Your task to perform on an android device: turn on showing notifications on the lock screen Image 0: 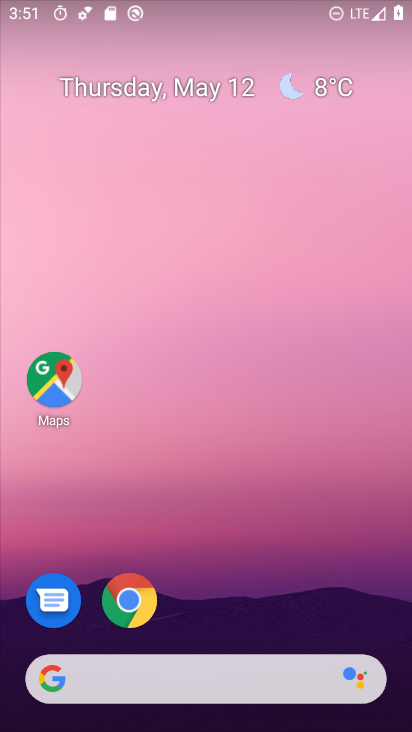
Step 0: drag from (217, 632) to (216, 192)
Your task to perform on an android device: turn on showing notifications on the lock screen Image 1: 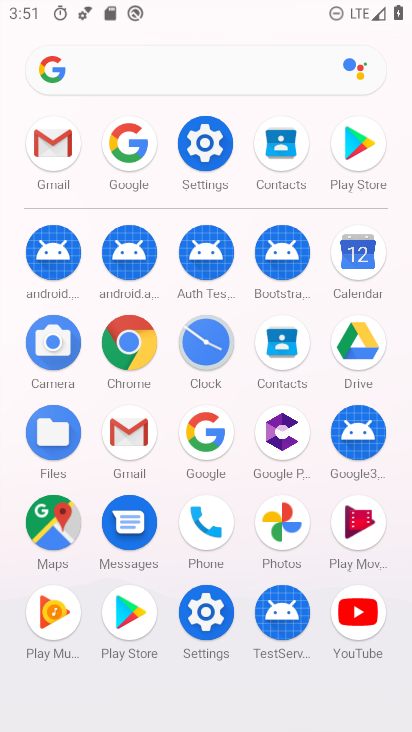
Step 1: click (209, 143)
Your task to perform on an android device: turn on showing notifications on the lock screen Image 2: 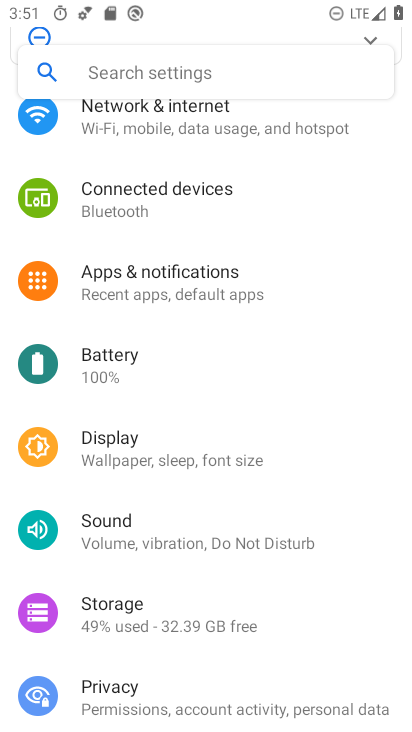
Step 2: click (158, 284)
Your task to perform on an android device: turn on showing notifications on the lock screen Image 3: 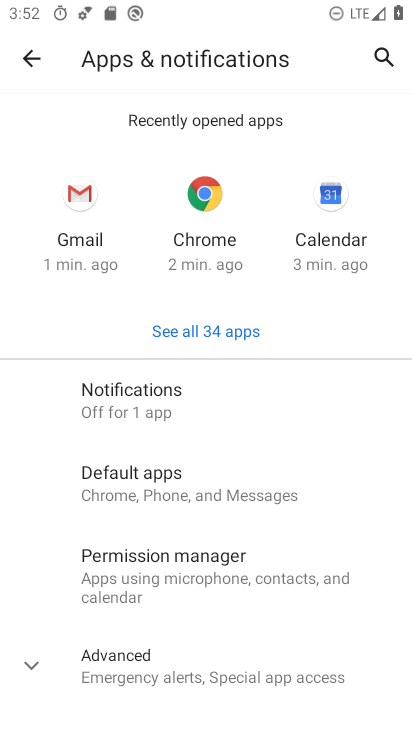
Step 3: click (122, 400)
Your task to perform on an android device: turn on showing notifications on the lock screen Image 4: 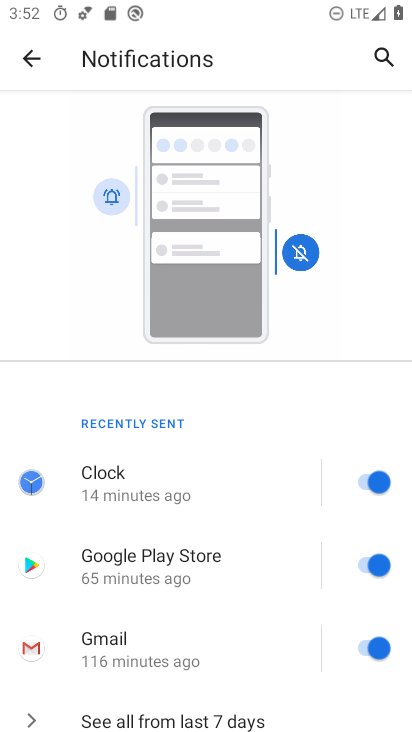
Step 4: drag from (179, 706) to (184, 236)
Your task to perform on an android device: turn on showing notifications on the lock screen Image 5: 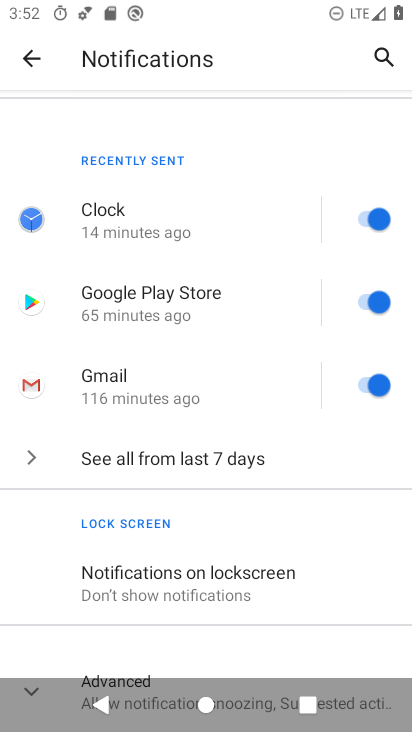
Step 5: click (176, 577)
Your task to perform on an android device: turn on showing notifications on the lock screen Image 6: 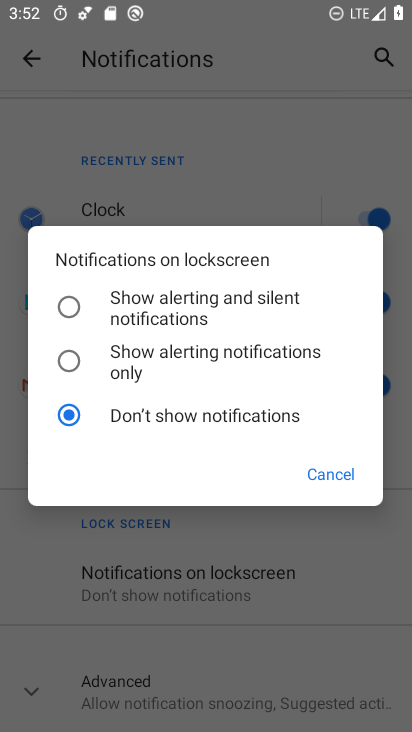
Step 6: click (72, 306)
Your task to perform on an android device: turn on showing notifications on the lock screen Image 7: 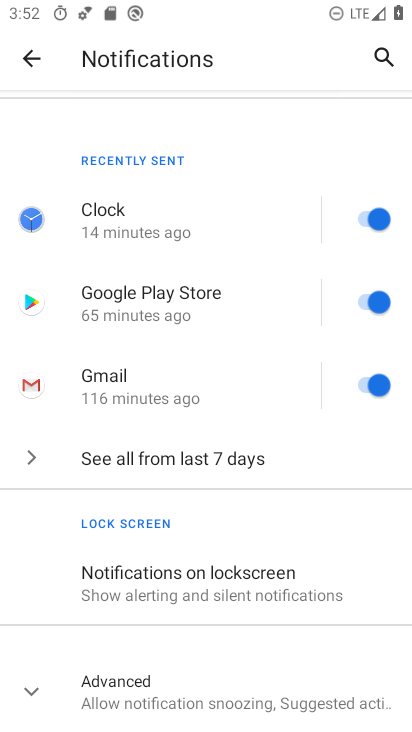
Step 7: task complete